Your task to perform on an android device: Open Google Chrome and open the bookmarks view Image 0: 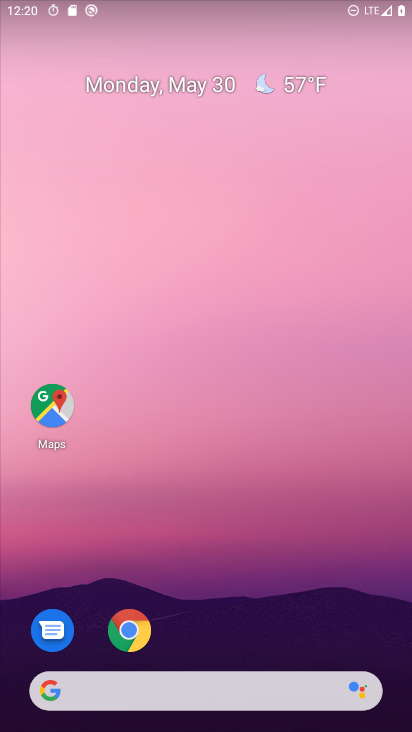
Step 0: drag from (229, 694) to (199, 205)
Your task to perform on an android device: Open Google Chrome and open the bookmarks view Image 1: 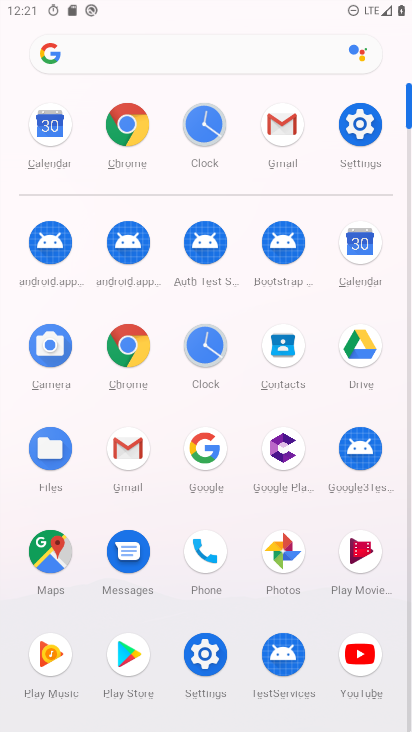
Step 1: click (138, 356)
Your task to perform on an android device: Open Google Chrome and open the bookmarks view Image 2: 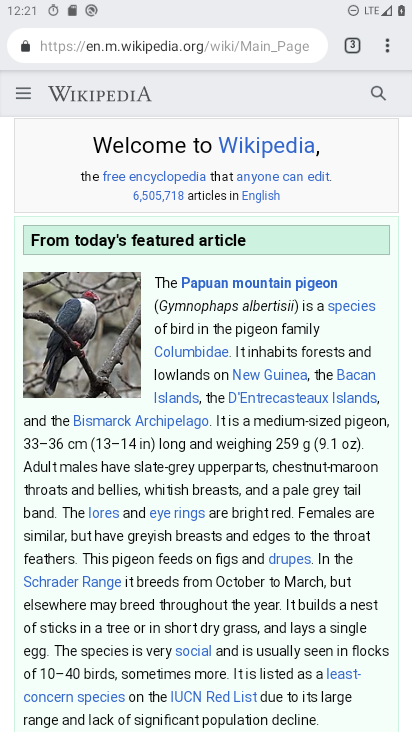
Step 2: click (381, 50)
Your task to perform on an android device: Open Google Chrome and open the bookmarks view Image 3: 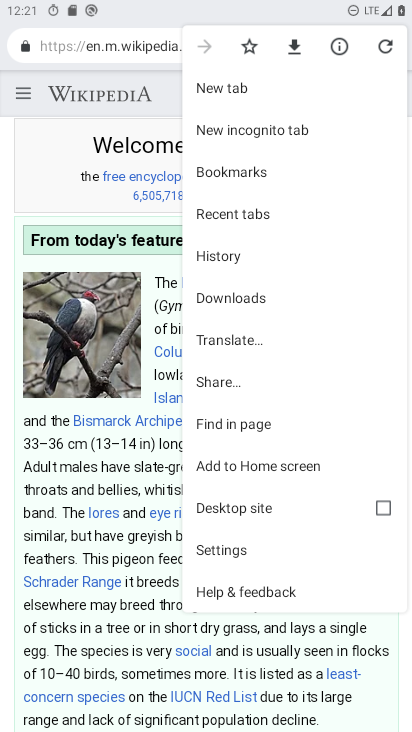
Step 3: click (221, 166)
Your task to perform on an android device: Open Google Chrome and open the bookmarks view Image 4: 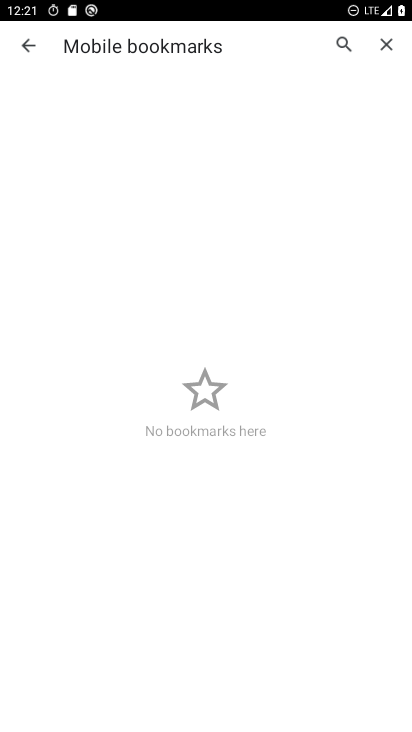
Step 4: task complete